Your task to perform on an android device: Open Chrome and go to settings Image 0: 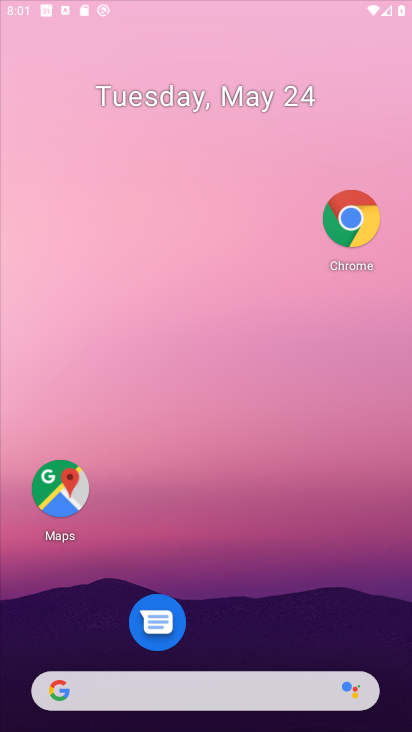
Step 0: press home button
Your task to perform on an android device: Open Chrome and go to settings Image 1: 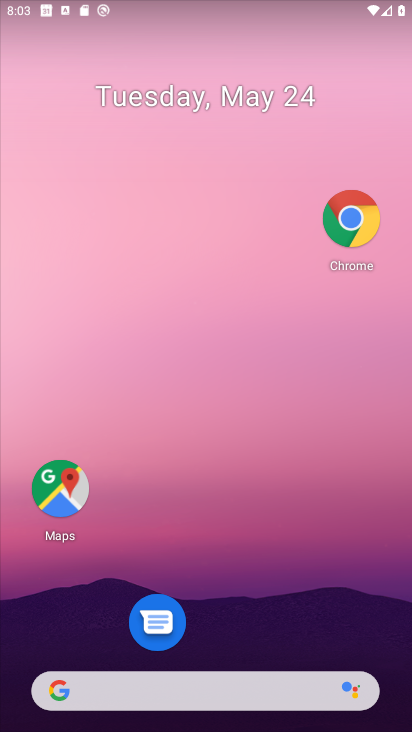
Step 1: drag from (249, 726) to (206, 71)
Your task to perform on an android device: Open Chrome and go to settings Image 2: 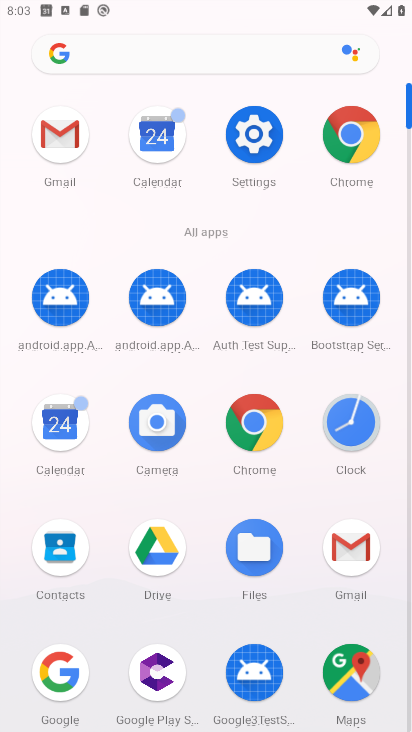
Step 2: click (248, 119)
Your task to perform on an android device: Open Chrome and go to settings Image 3: 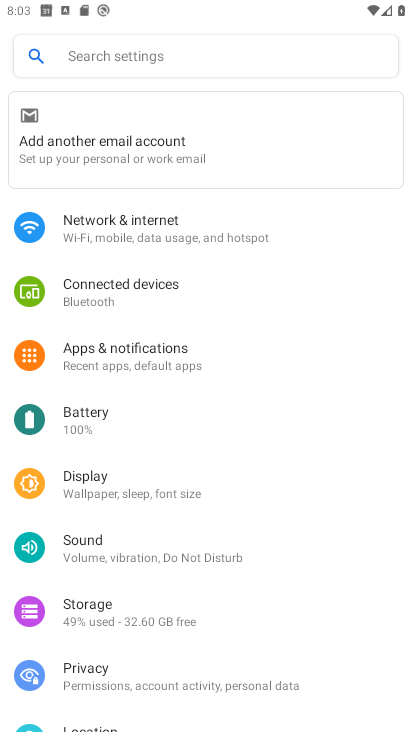
Step 3: press home button
Your task to perform on an android device: Open Chrome and go to settings Image 4: 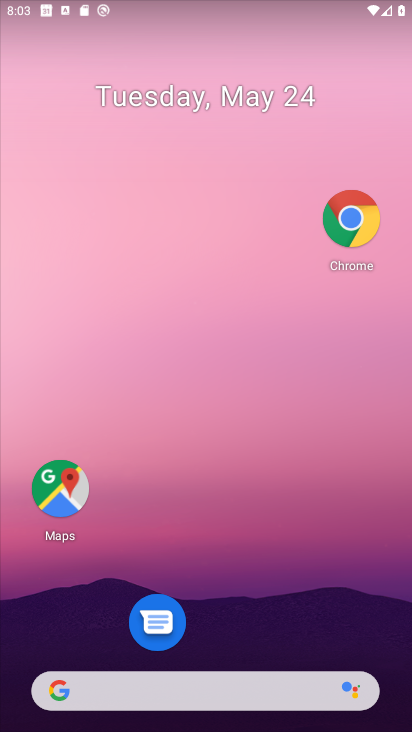
Step 4: drag from (216, 707) to (346, 64)
Your task to perform on an android device: Open Chrome and go to settings Image 5: 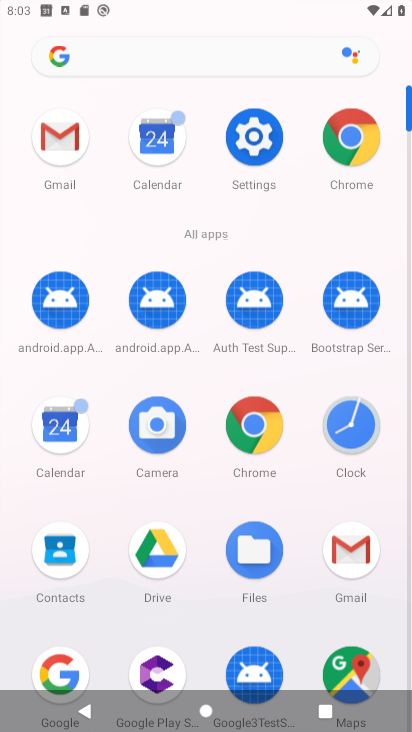
Step 5: click (357, 139)
Your task to perform on an android device: Open Chrome and go to settings Image 6: 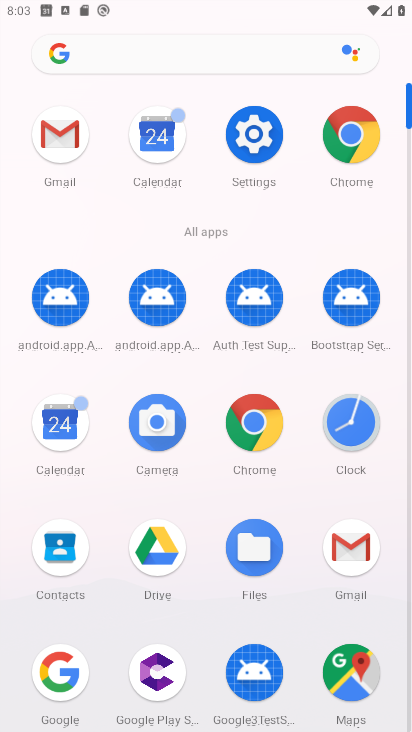
Step 6: click (335, 134)
Your task to perform on an android device: Open Chrome and go to settings Image 7: 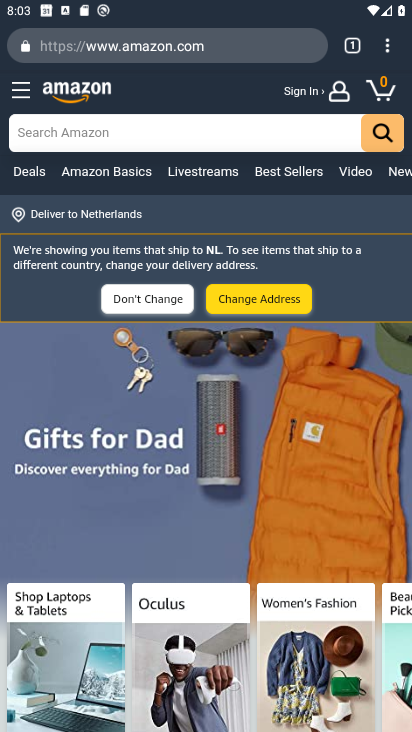
Step 7: click (375, 48)
Your task to perform on an android device: Open Chrome and go to settings Image 8: 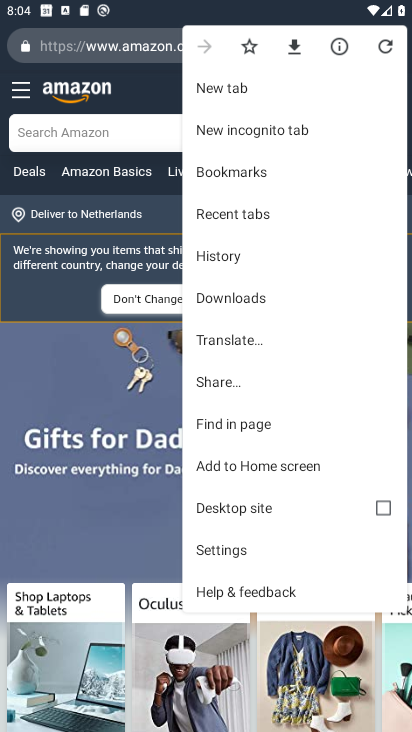
Step 8: click (227, 551)
Your task to perform on an android device: Open Chrome and go to settings Image 9: 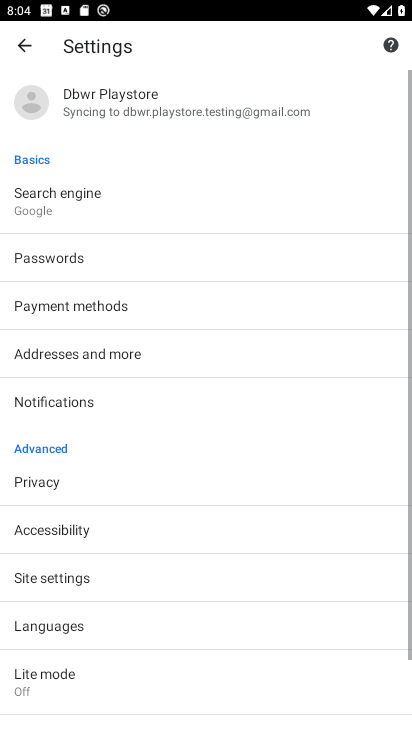
Step 9: task complete